Your task to perform on an android device: show emergency info Image 0: 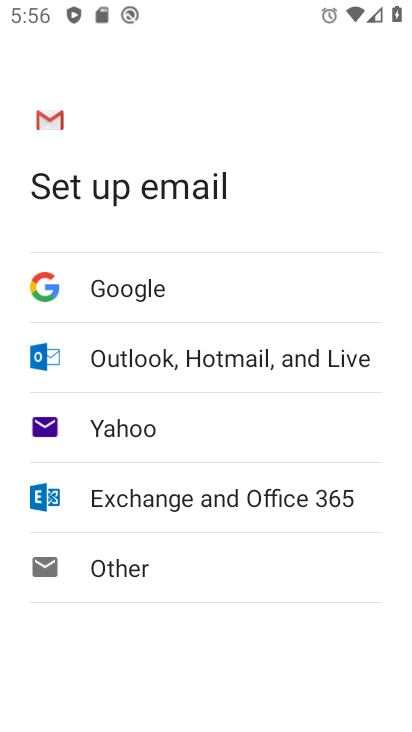
Step 0: press back button
Your task to perform on an android device: show emergency info Image 1: 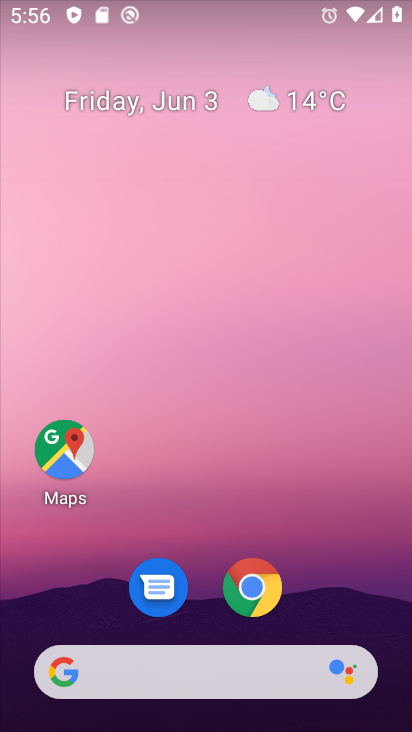
Step 1: drag from (302, 545) to (227, 22)
Your task to perform on an android device: show emergency info Image 2: 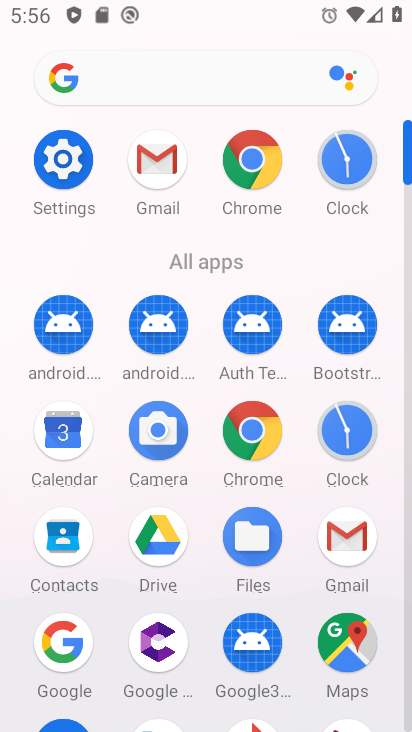
Step 2: click (61, 154)
Your task to perform on an android device: show emergency info Image 3: 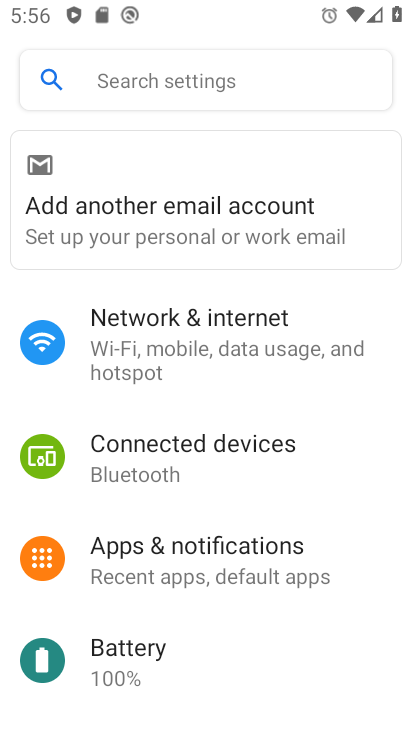
Step 3: drag from (335, 657) to (350, 230)
Your task to perform on an android device: show emergency info Image 4: 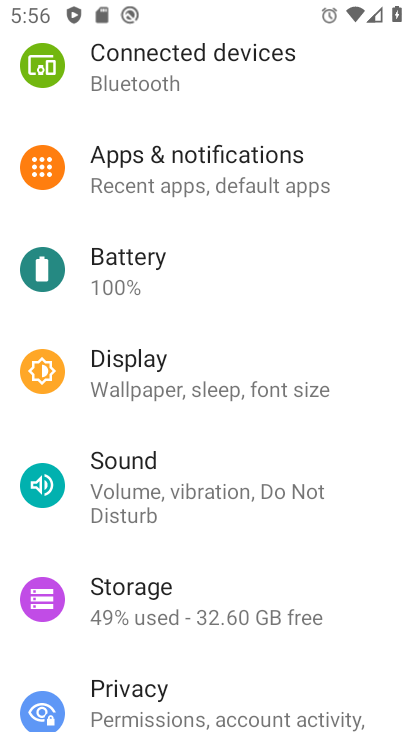
Step 4: click (361, 202)
Your task to perform on an android device: show emergency info Image 5: 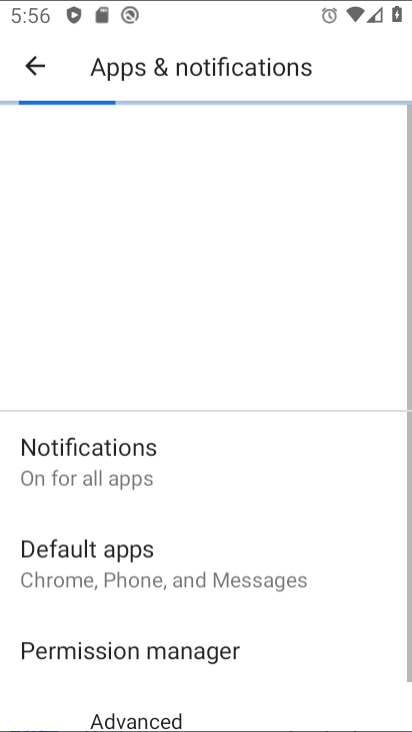
Step 5: drag from (320, 590) to (318, 166)
Your task to perform on an android device: show emergency info Image 6: 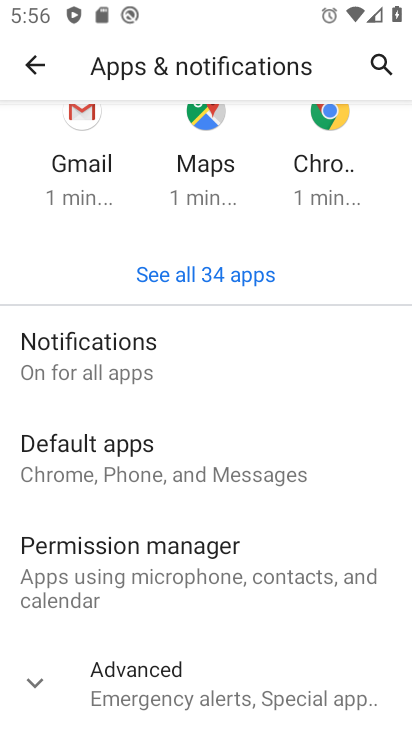
Step 6: click (91, 671)
Your task to perform on an android device: show emergency info Image 7: 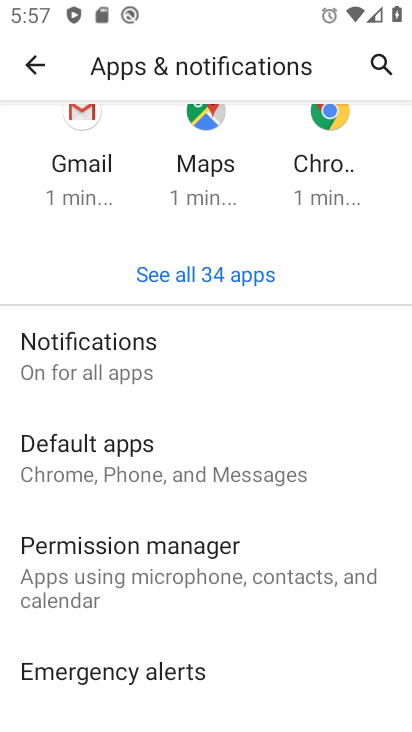
Step 7: drag from (339, 319) to (340, 246)
Your task to perform on an android device: show emergency info Image 8: 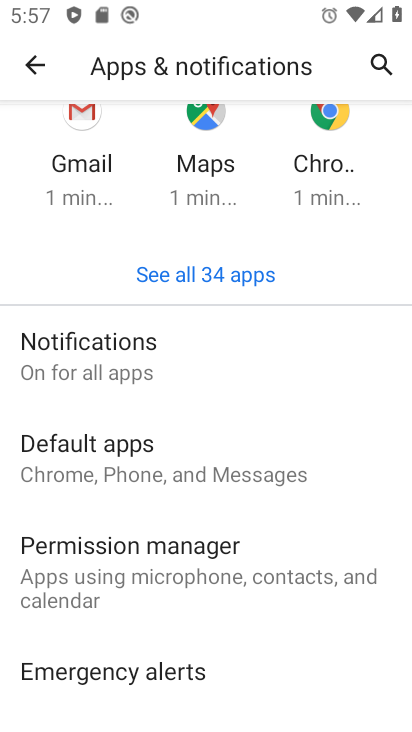
Step 8: drag from (277, 579) to (312, 325)
Your task to perform on an android device: show emergency info Image 9: 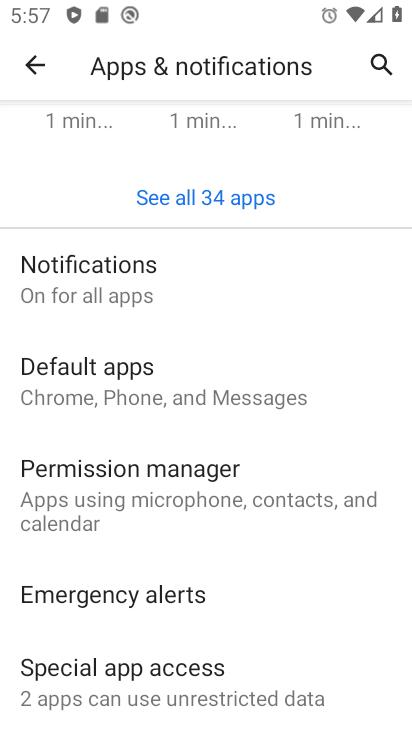
Step 9: click (30, 56)
Your task to perform on an android device: show emergency info Image 10: 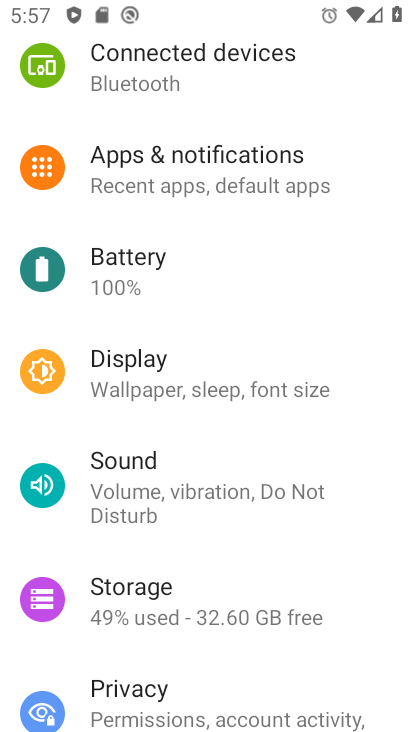
Step 10: drag from (371, 637) to (376, 211)
Your task to perform on an android device: show emergency info Image 11: 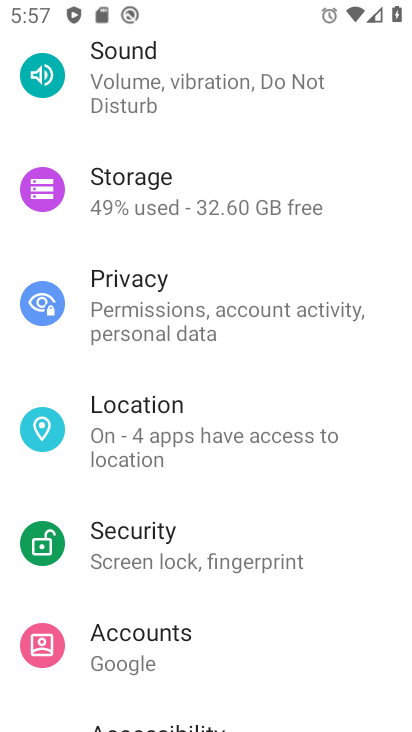
Step 11: drag from (344, 588) to (348, 265)
Your task to perform on an android device: show emergency info Image 12: 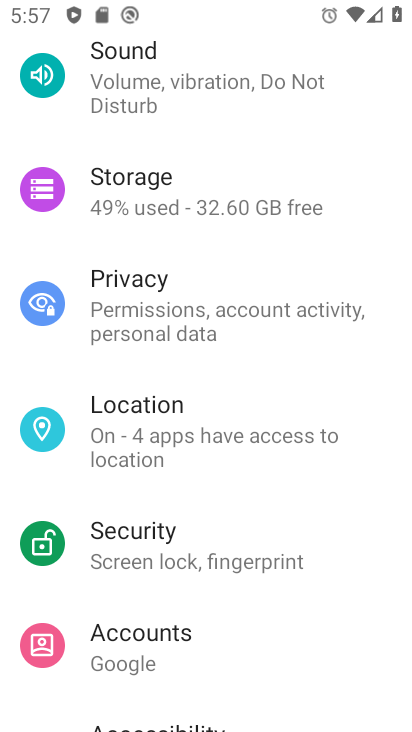
Step 12: drag from (300, 658) to (326, 329)
Your task to perform on an android device: show emergency info Image 13: 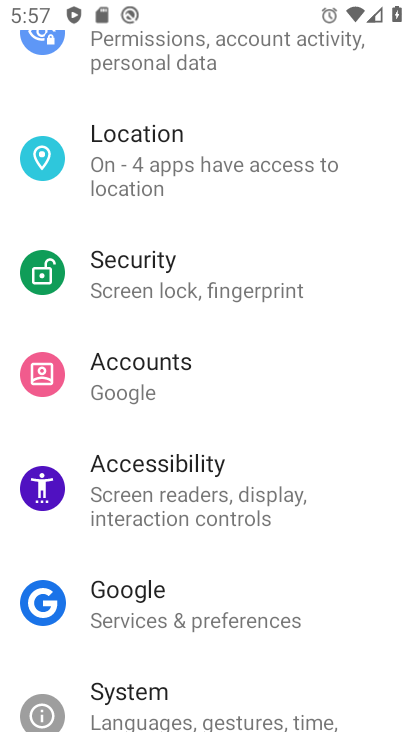
Step 13: drag from (352, 635) to (376, 292)
Your task to perform on an android device: show emergency info Image 14: 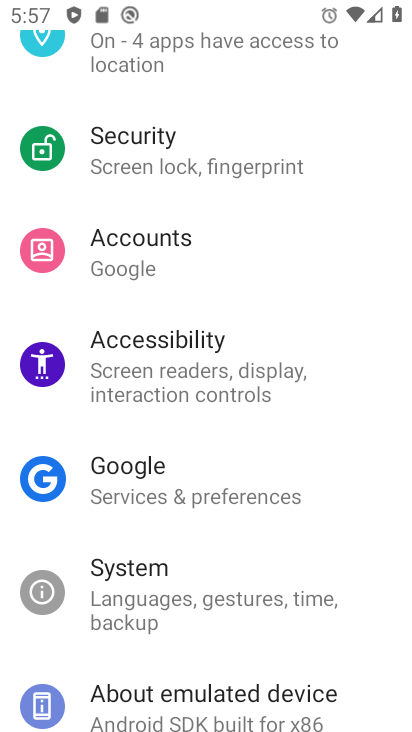
Step 14: drag from (315, 631) to (349, 281)
Your task to perform on an android device: show emergency info Image 15: 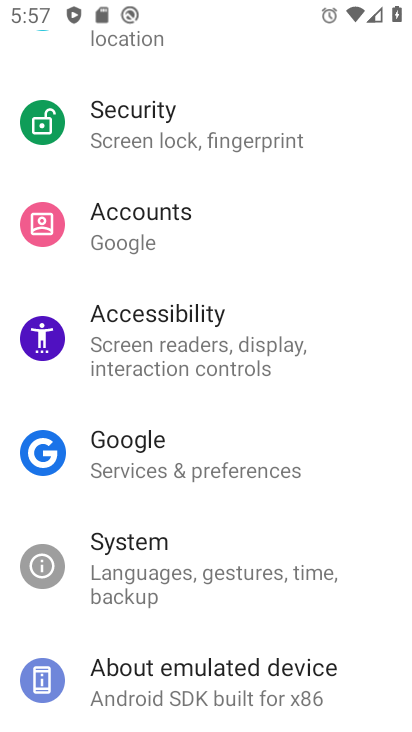
Step 15: click (185, 668)
Your task to perform on an android device: show emergency info Image 16: 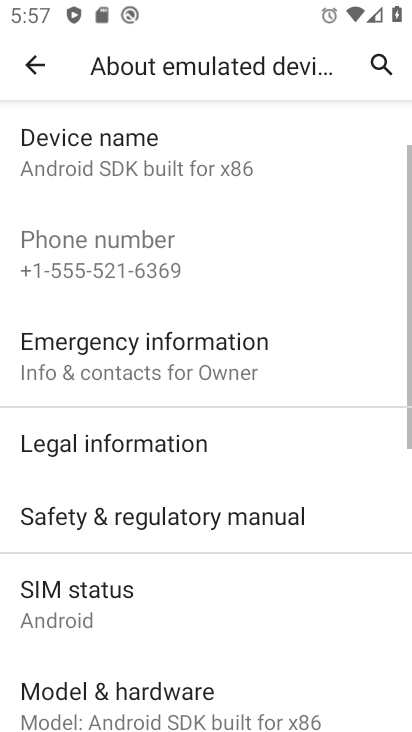
Step 16: task complete